Your task to perform on an android device: visit the assistant section in the google photos Image 0: 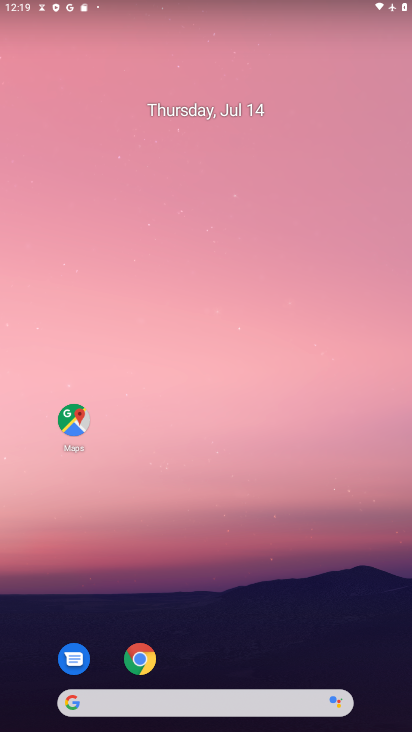
Step 0: drag from (162, 382) to (401, 631)
Your task to perform on an android device: visit the assistant section in the google photos Image 1: 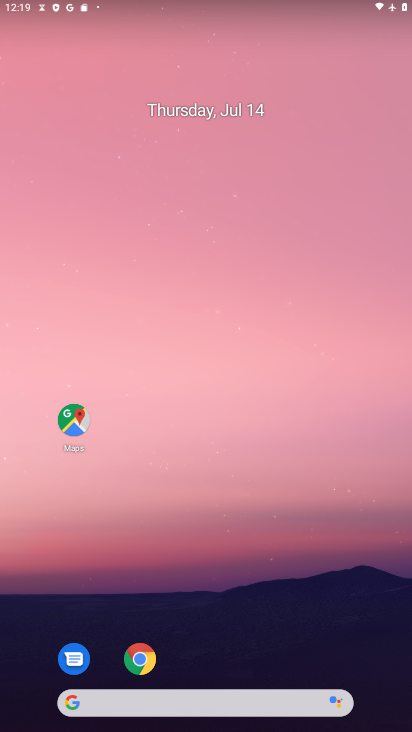
Step 1: drag from (36, 619) to (233, 177)
Your task to perform on an android device: visit the assistant section in the google photos Image 2: 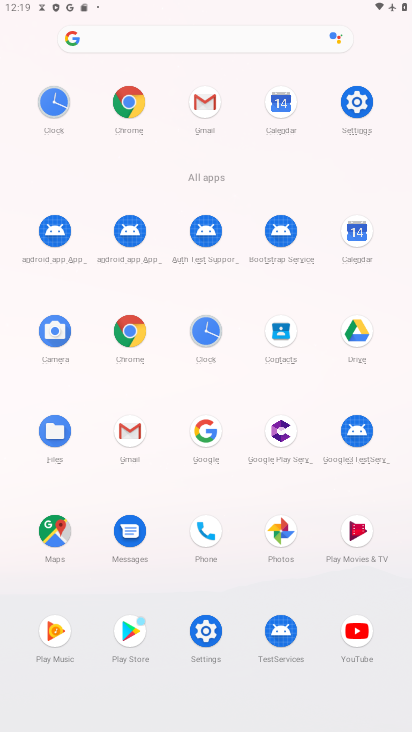
Step 2: click (280, 533)
Your task to perform on an android device: visit the assistant section in the google photos Image 3: 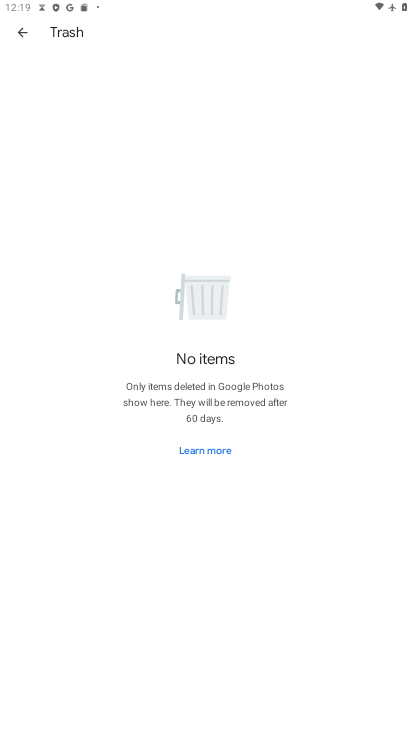
Step 3: click (22, 35)
Your task to perform on an android device: visit the assistant section in the google photos Image 4: 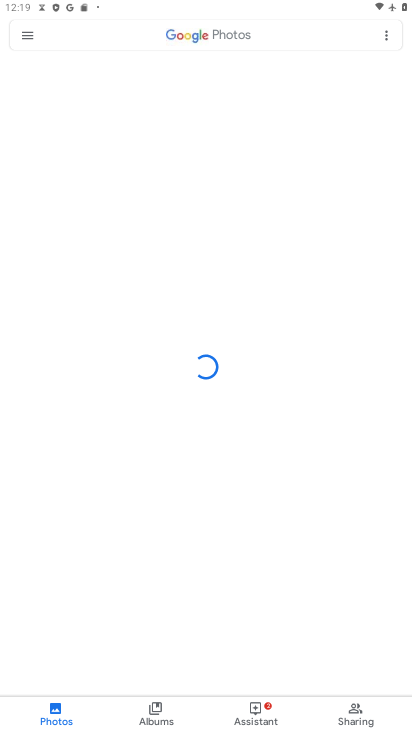
Step 4: click (255, 714)
Your task to perform on an android device: visit the assistant section in the google photos Image 5: 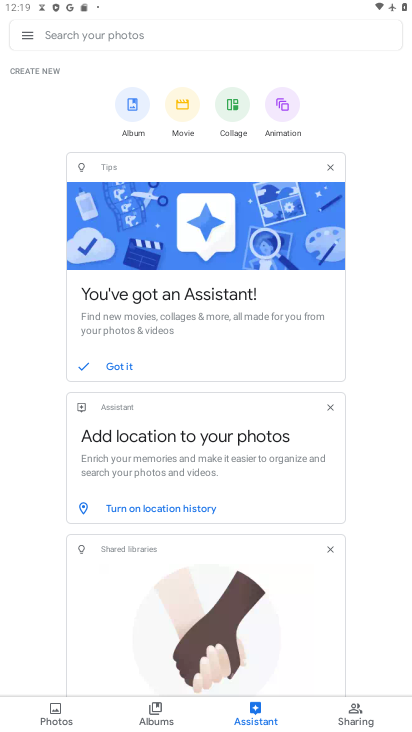
Step 5: task complete